Your task to perform on an android device: turn on improve location accuracy Image 0: 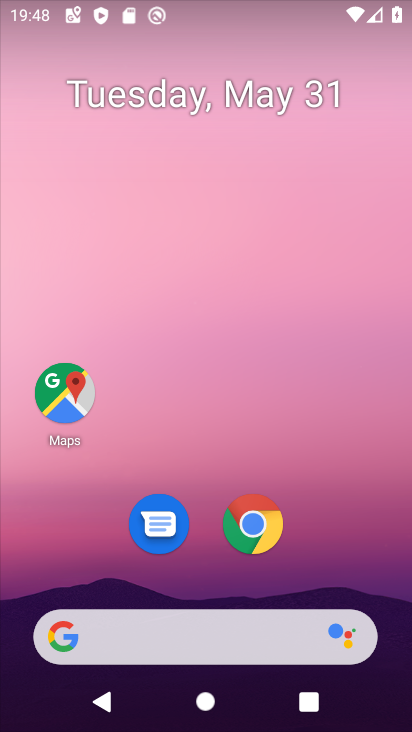
Step 0: drag from (216, 468) to (253, 1)
Your task to perform on an android device: turn on improve location accuracy Image 1: 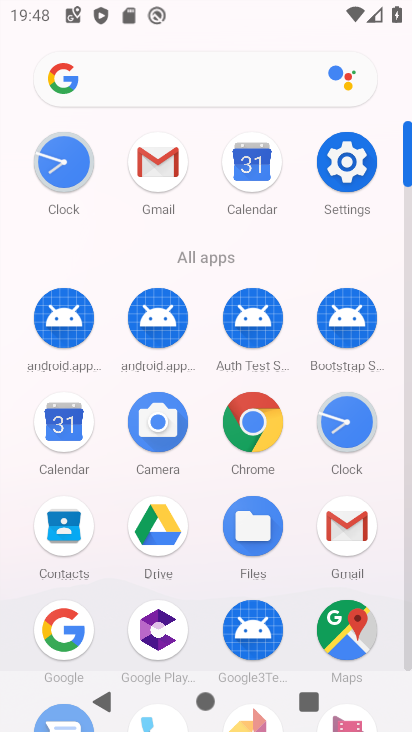
Step 1: click (343, 168)
Your task to perform on an android device: turn on improve location accuracy Image 2: 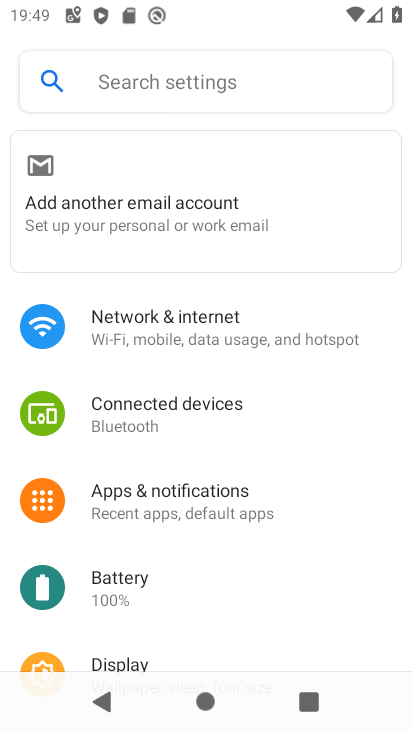
Step 2: drag from (214, 567) to (228, 125)
Your task to perform on an android device: turn on improve location accuracy Image 3: 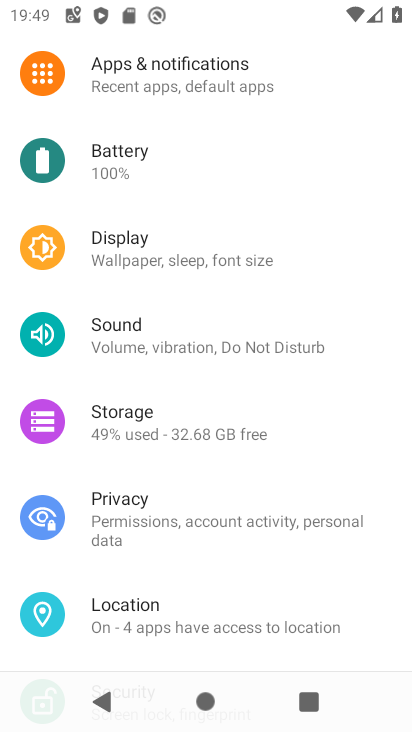
Step 3: click (252, 602)
Your task to perform on an android device: turn on improve location accuracy Image 4: 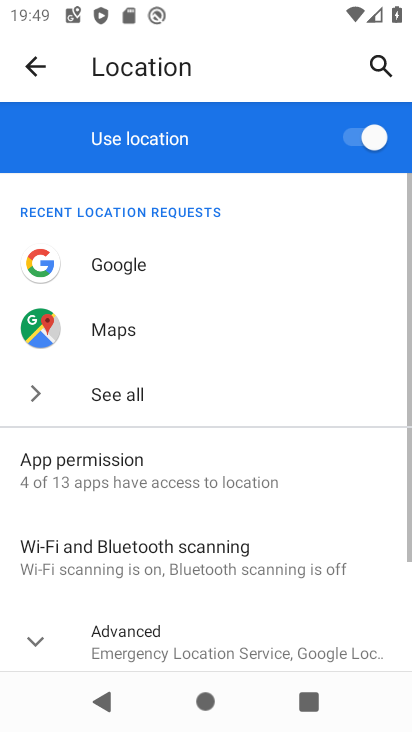
Step 4: click (36, 637)
Your task to perform on an android device: turn on improve location accuracy Image 5: 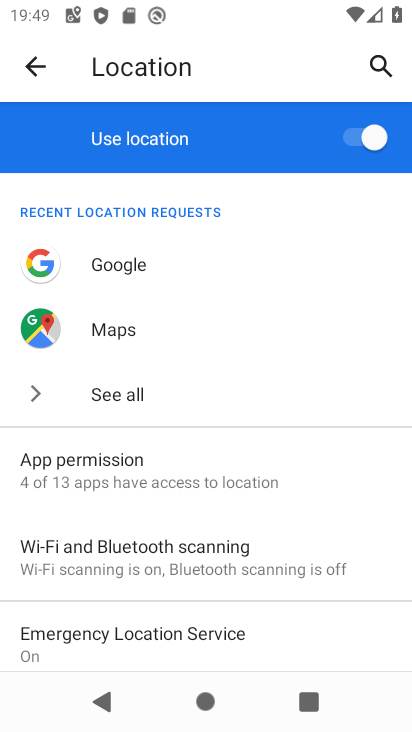
Step 5: task complete